Your task to perform on an android device: turn off improve location accuracy Image 0: 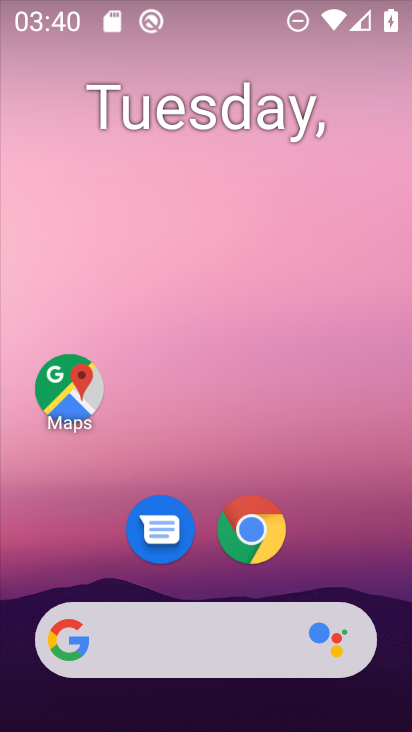
Step 0: drag from (259, 570) to (275, 243)
Your task to perform on an android device: turn off improve location accuracy Image 1: 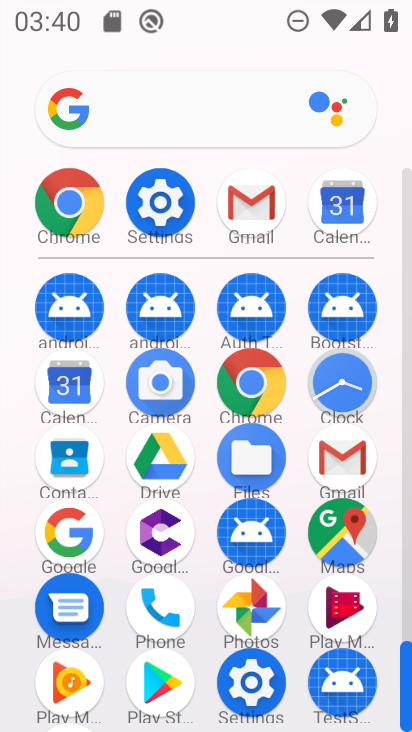
Step 1: click (172, 205)
Your task to perform on an android device: turn off improve location accuracy Image 2: 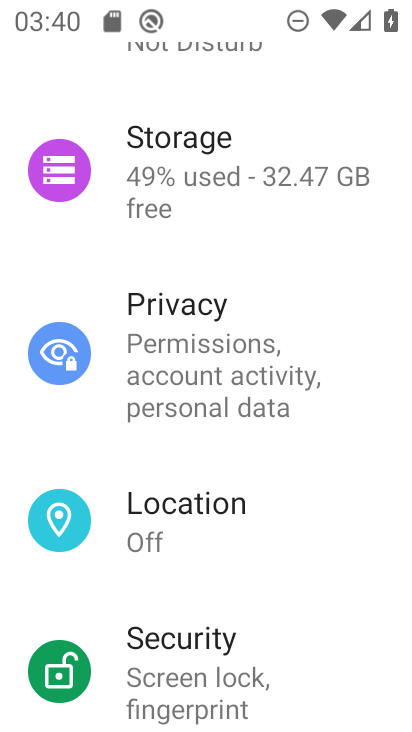
Step 2: click (200, 528)
Your task to perform on an android device: turn off improve location accuracy Image 3: 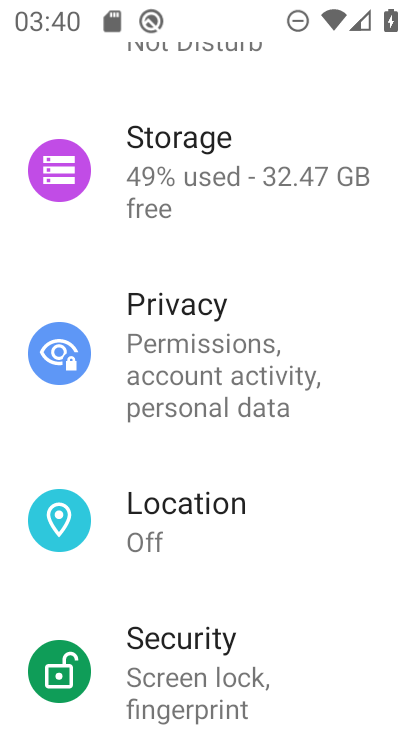
Step 3: click (243, 554)
Your task to perform on an android device: turn off improve location accuracy Image 4: 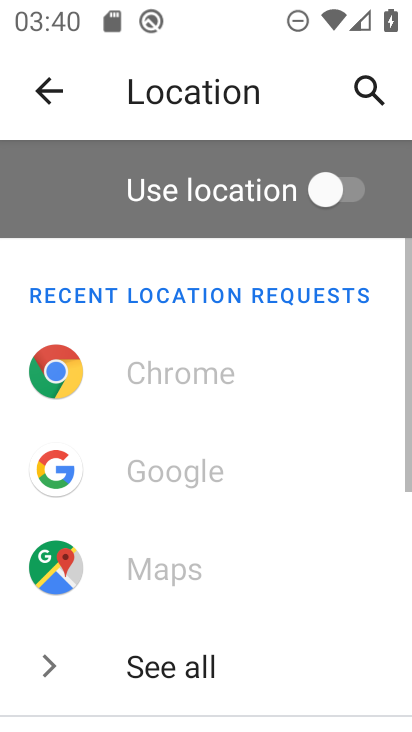
Step 4: drag from (244, 659) to (247, 321)
Your task to perform on an android device: turn off improve location accuracy Image 5: 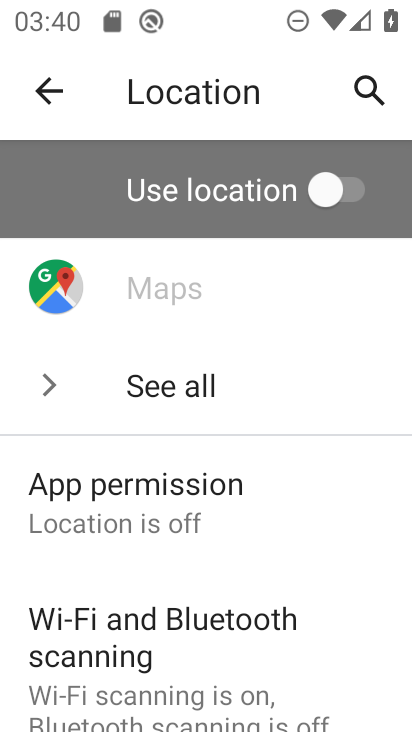
Step 5: drag from (162, 536) to (226, 285)
Your task to perform on an android device: turn off improve location accuracy Image 6: 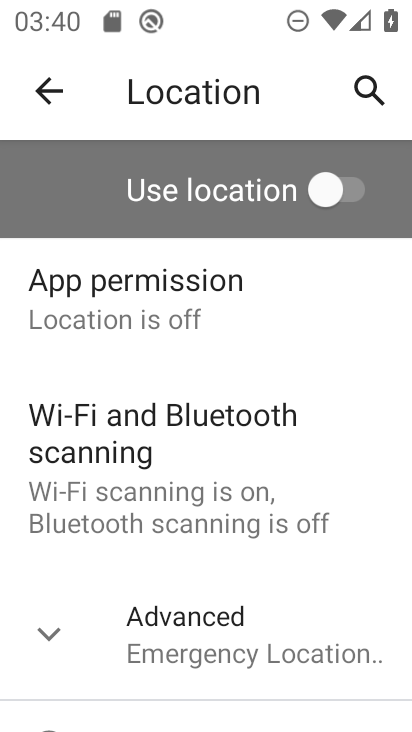
Step 6: click (187, 499)
Your task to perform on an android device: turn off improve location accuracy Image 7: 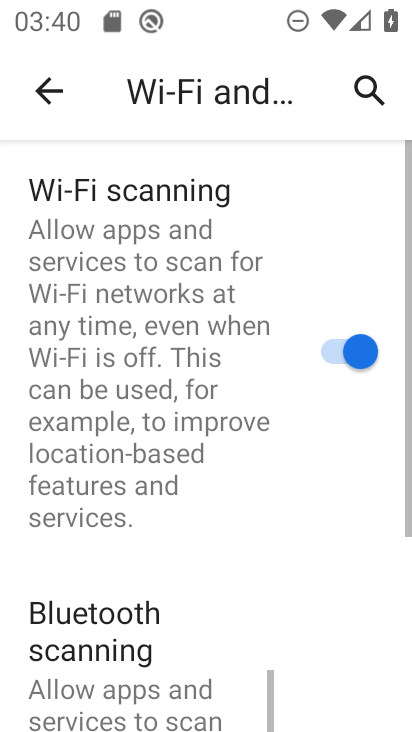
Step 7: click (71, 102)
Your task to perform on an android device: turn off improve location accuracy Image 8: 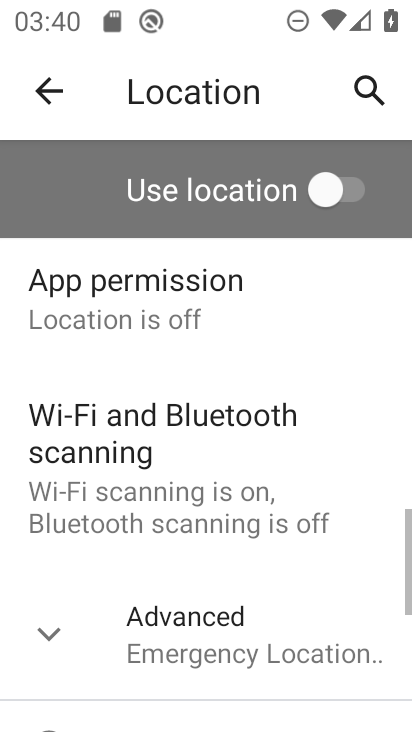
Step 8: click (218, 673)
Your task to perform on an android device: turn off improve location accuracy Image 9: 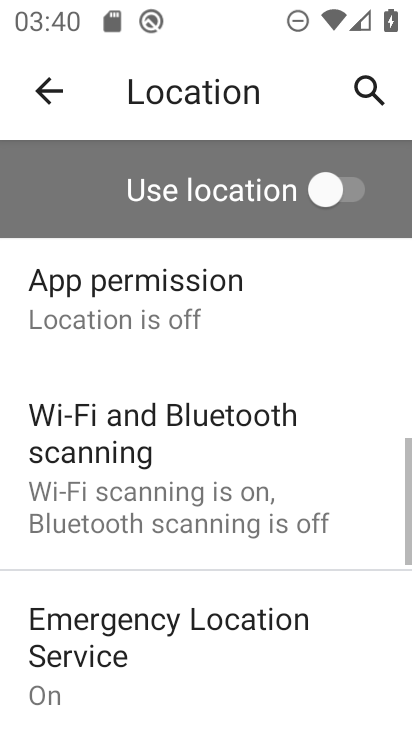
Step 9: drag from (298, 632) to (267, 400)
Your task to perform on an android device: turn off improve location accuracy Image 10: 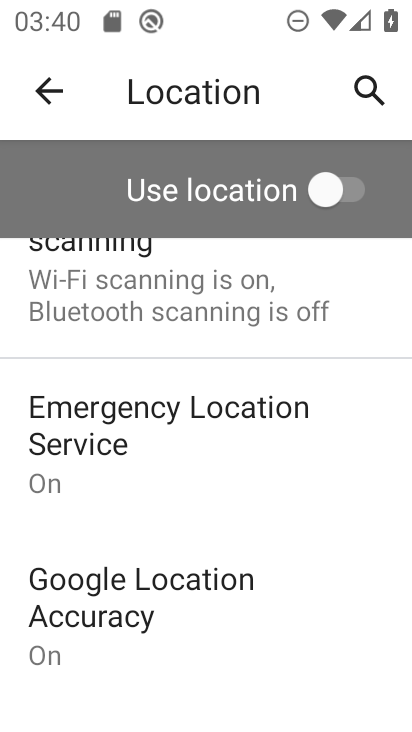
Step 10: drag from (171, 638) to (211, 254)
Your task to perform on an android device: turn off improve location accuracy Image 11: 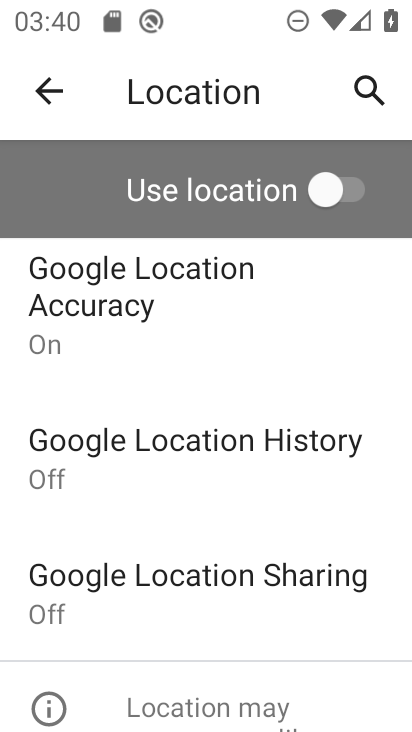
Step 11: click (214, 291)
Your task to perform on an android device: turn off improve location accuracy Image 12: 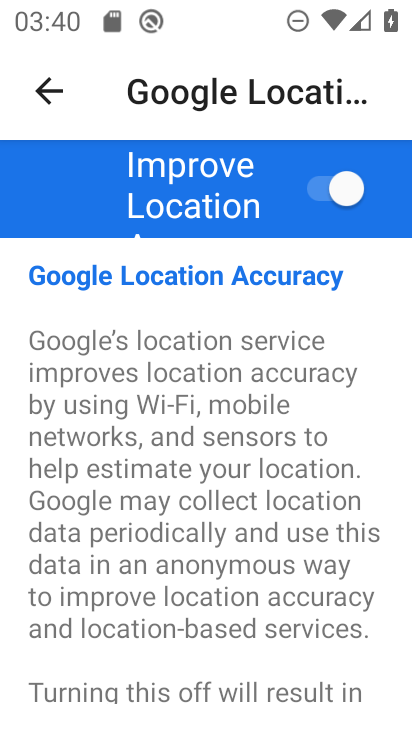
Step 12: click (324, 169)
Your task to perform on an android device: turn off improve location accuracy Image 13: 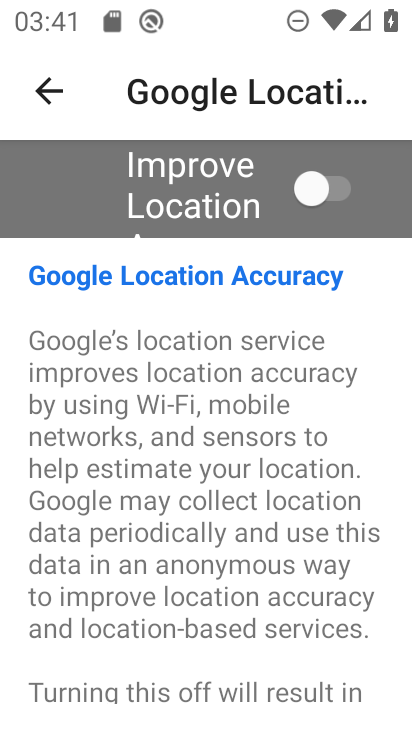
Step 13: task complete